Your task to perform on an android device: Open CNN.com Image 0: 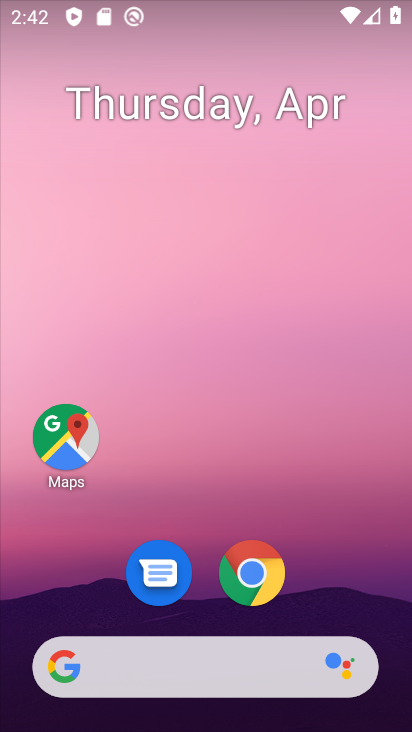
Step 0: drag from (356, 577) to (227, 37)
Your task to perform on an android device: Open CNN.com Image 1: 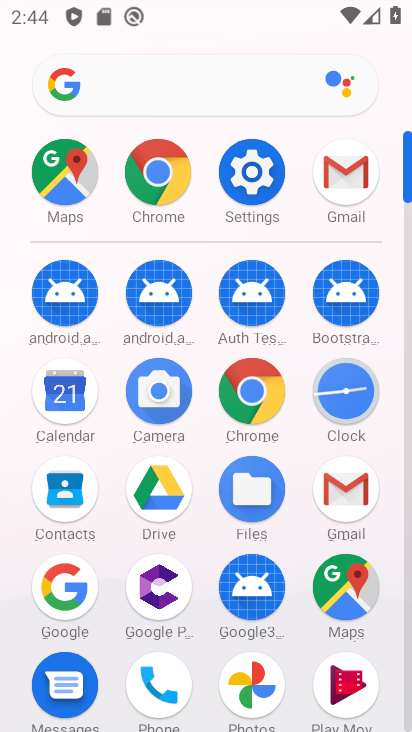
Step 1: click (149, 171)
Your task to perform on an android device: Open CNN.com Image 2: 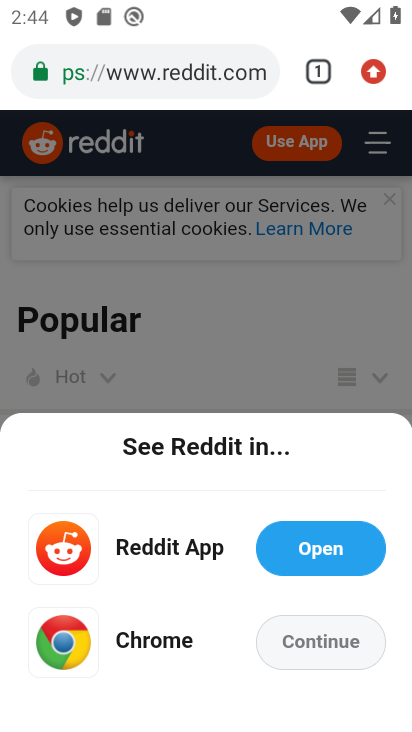
Step 2: press back button
Your task to perform on an android device: Open CNN.com Image 3: 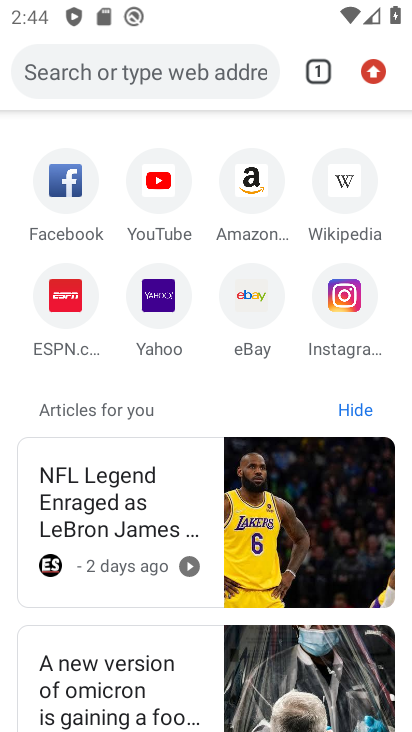
Step 3: click (142, 57)
Your task to perform on an android device: Open CNN.com Image 4: 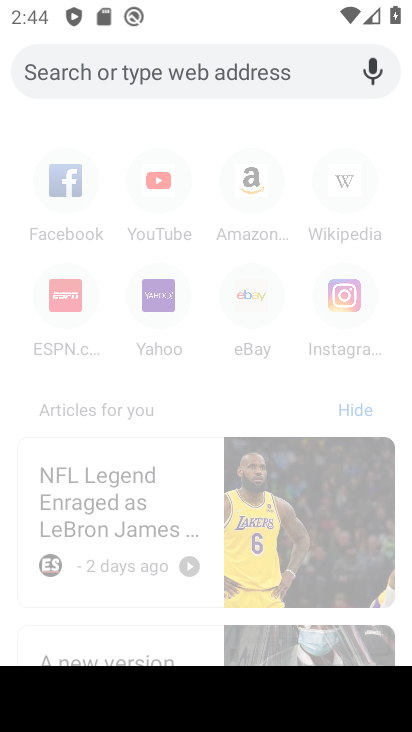
Step 4: type "cnn.com"
Your task to perform on an android device: Open CNN.com Image 5: 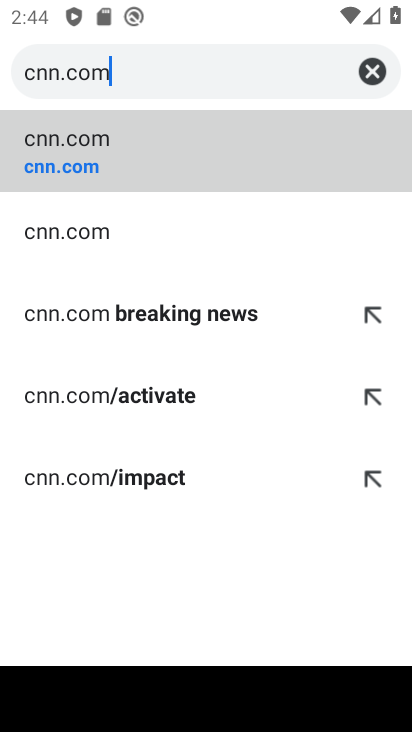
Step 5: click (245, 172)
Your task to perform on an android device: Open CNN.com Image 6: 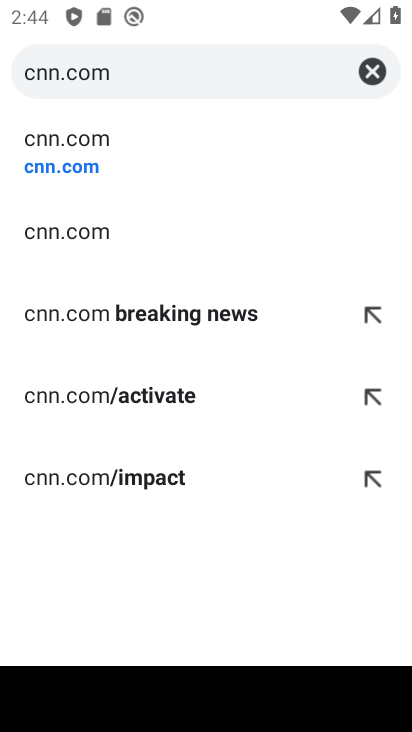
Step 6: click (108, 154)
Your task to perform on an android device: Open CNN.com Image 7: 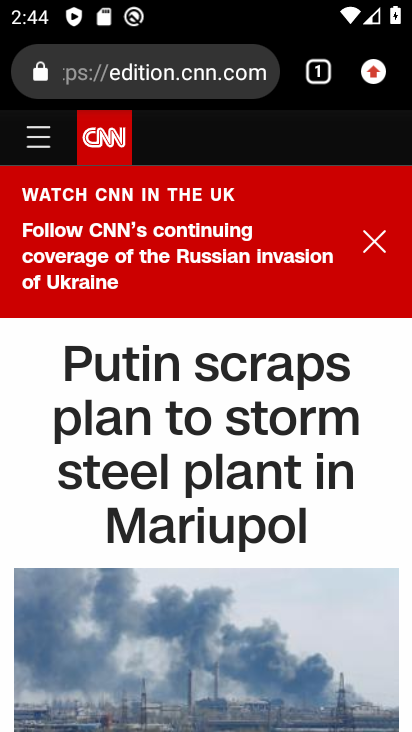
Step 7: task complete